Your task to perform on an android device: turn off improve location accuracy Image 0: 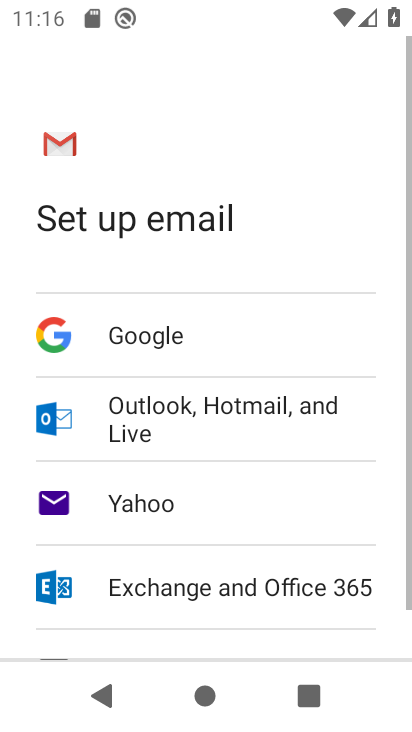
Step 0: press back button
Your task to perform on an android device: turn off improve location accuracy Image 1: 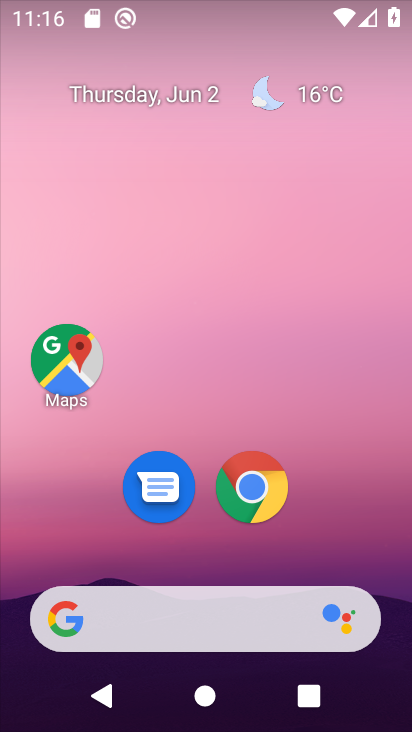
Step 1: drag from (340, 530) to (220, 107)
Your task to perform on an android device: turn off improve location accuracy Image 2: 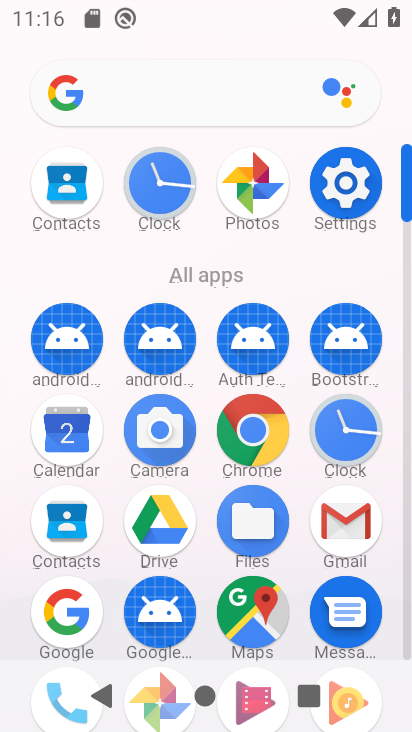
Step 2: click (345, 183)
Your task to perform on an android device: turn off improve location accuracy Image 3: 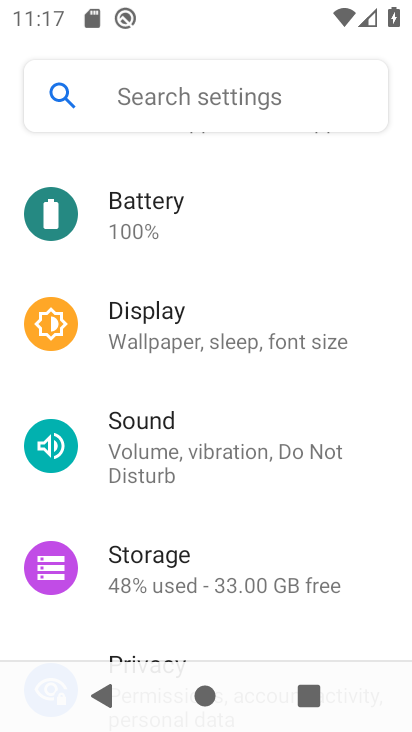
Step 3: drag from (239, 239) to (257, 332)
Your task to perform on an android device: turn off improve location accuracy Image 4: 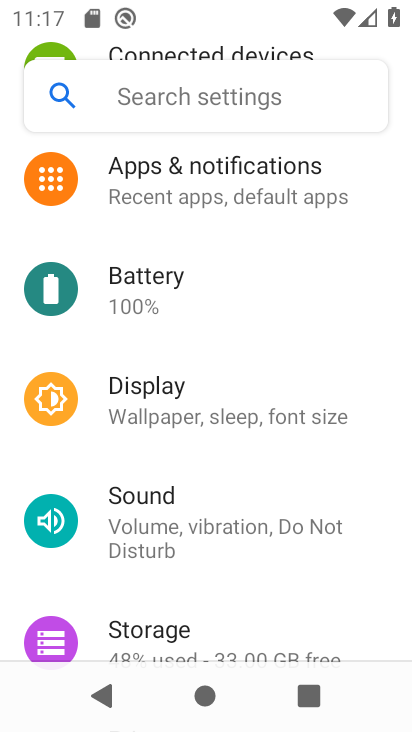
Step 4: drag from (236, 251) to (247, 307)
Your task to perform on an android device: turn off improve location accuracy Image 5: 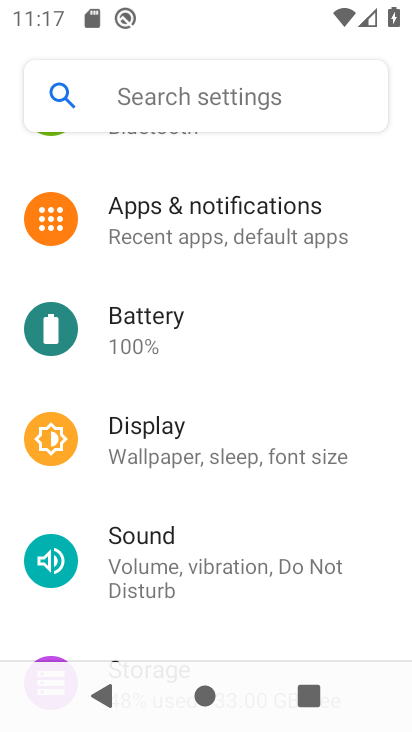
Step 5: drag from (239, 388) to (238, 299)
Your task to perform on an android device: turn off improve location accuracy Image 6: 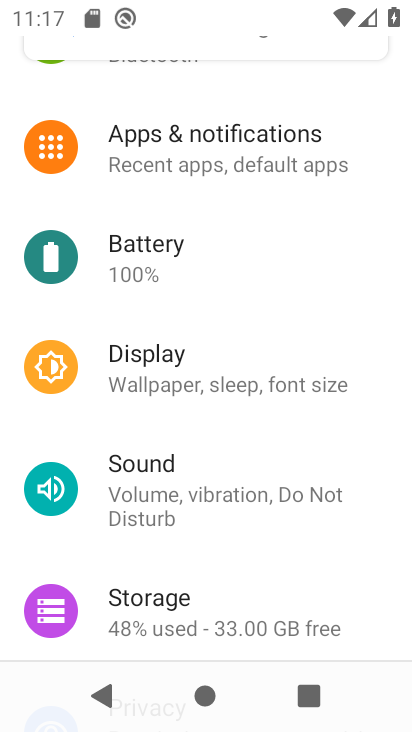
Step 6: drag from (226, 426) to (256, 334)
Your task to perform on an android device: turn off improve location accuracy Image 7: 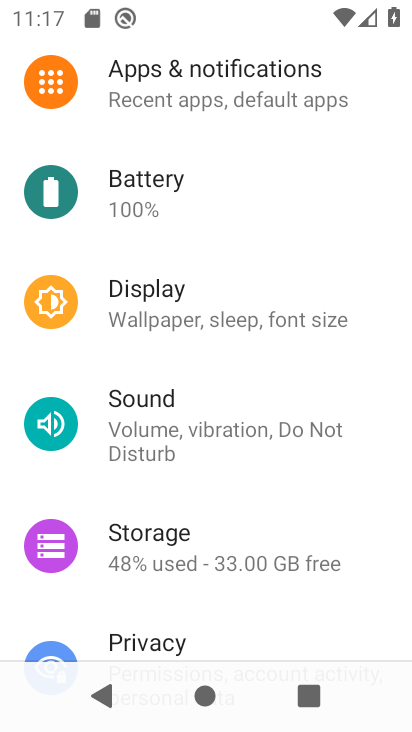
Step 7: drag from (221, 382) to (252, 292)
Your task to perform on an android device: turn off improve location accuracy Image 8: 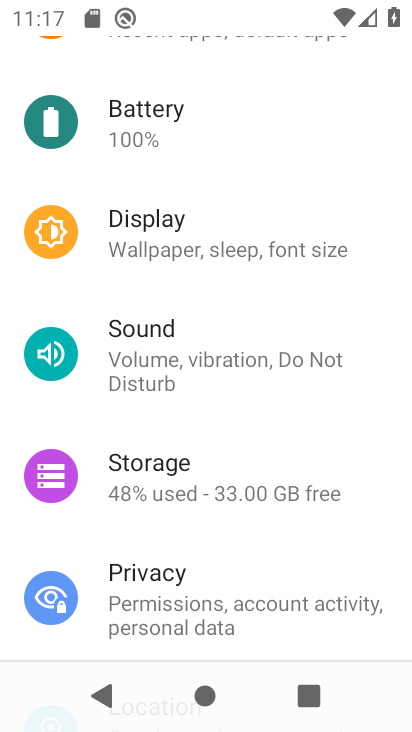
Step 8: drag from (228, 418) to (291, 331)
Your task to perform on an android device: turn off improve location accuracy Image 9: 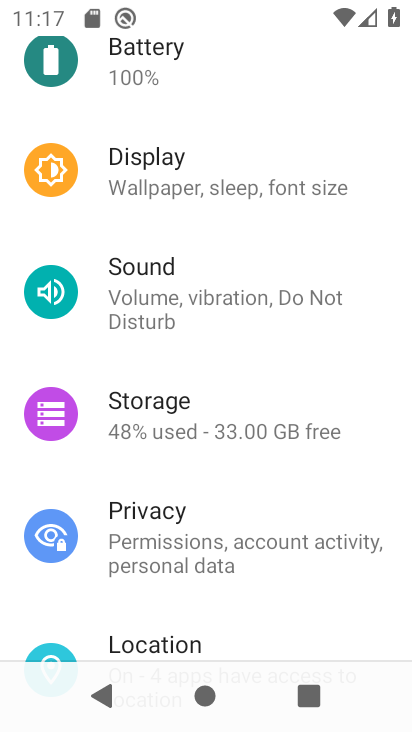
Step 9: drag from (240, 372) to (296, 270)
Your task to perform on an android device: turn off improve location accuracy Image 10: 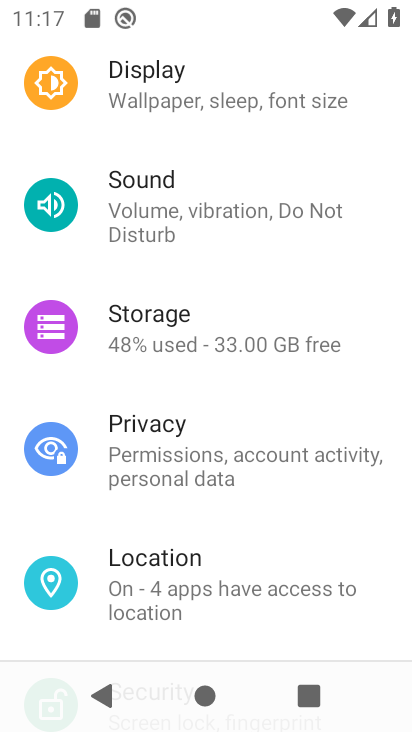
Step 10: drag from (228, 400) to (281, 316)
Your task to perform on an android device: turn off improve location accuracy Image 11: 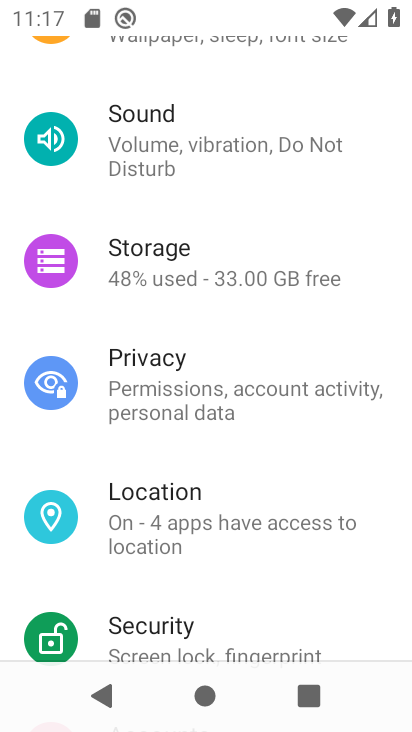
Step 11: click (227, 521)
Your task to perform on an android device: turn off improve location accuracy Image 12: 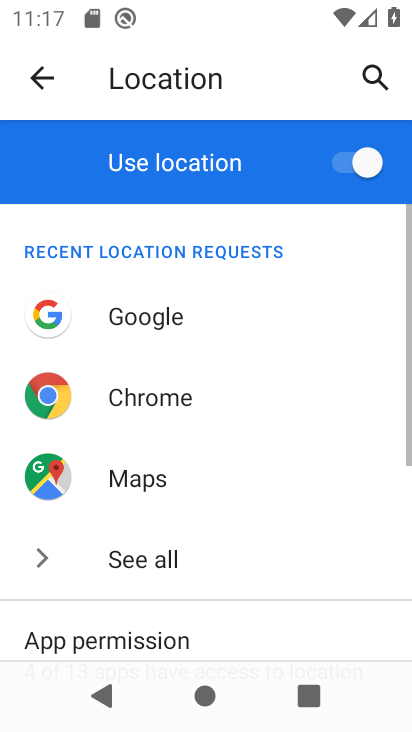
Step 12: drag from (234, 542) to (265, 391)
Your task to perform on an android device: turn off improve location accuracy Image 13: 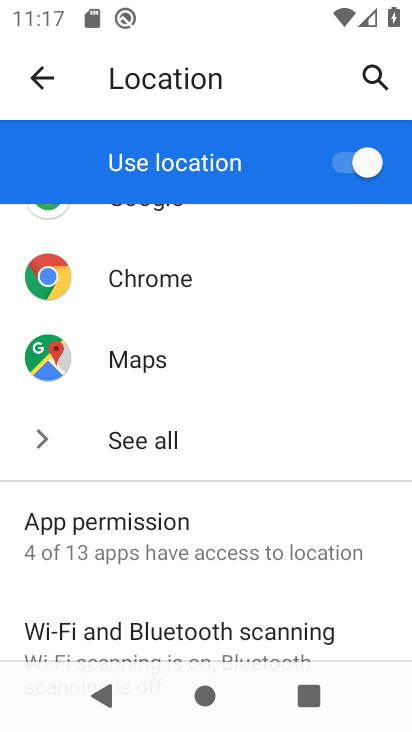
Step 13: drag from (204, 581) to (267, 470)
Your task to perform on an android device: turn off improve location accuracy Image 14: 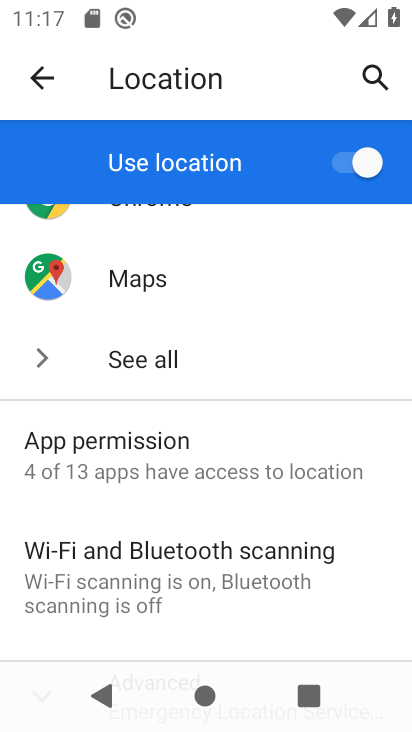
Step 14: drag from (225, 618) to (311, 479)
Your task to perform on an android device: turn off improve location accuracy Image 15: 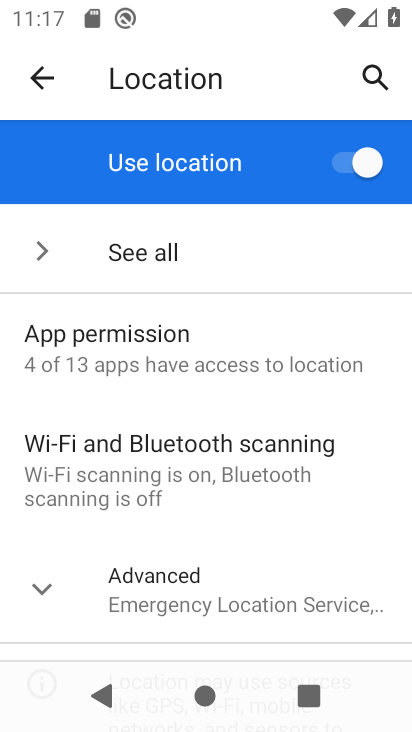
Step 15: click (257, 606)
Your task to perform on an android device: turn off improve location accuracy Image 16: 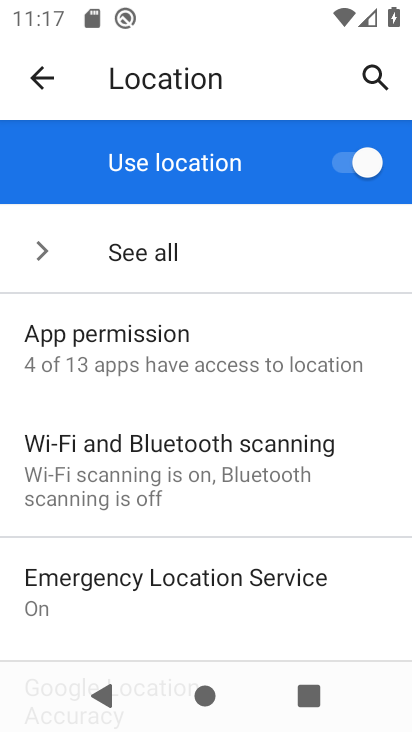
Step 16: drag from (229, 612) to (295, 512)
Your task to perform on an android device: turn off improve location accuracy Image 17: 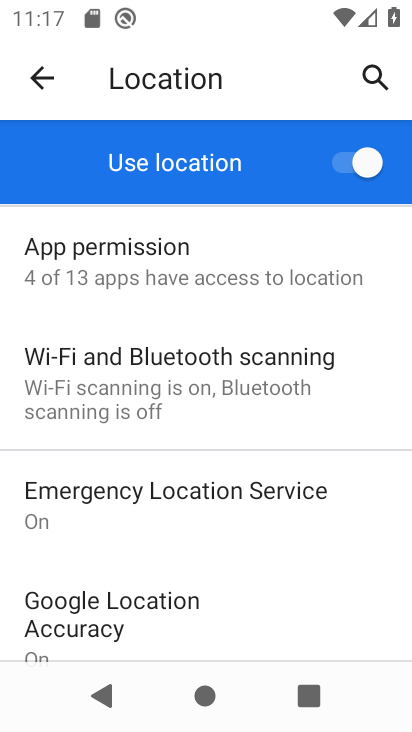
Step 17: drag from (228, 614) to (279, 524)
Your task to perform on an android device: turn off improve location accuracy Image 18: 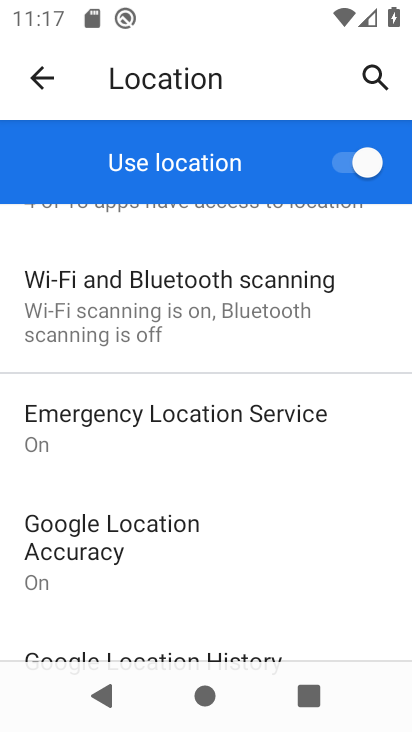
Step 18: click (205, 548)
Your task to perform on an android device: turn off improve location accuracy Image 19: 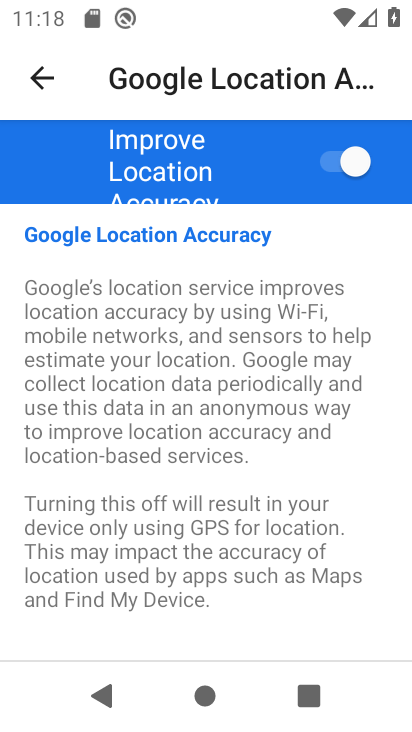
Step 19: click (330, 168)
Your task to perform on an android device: turn off improve location accuracy Image 20: 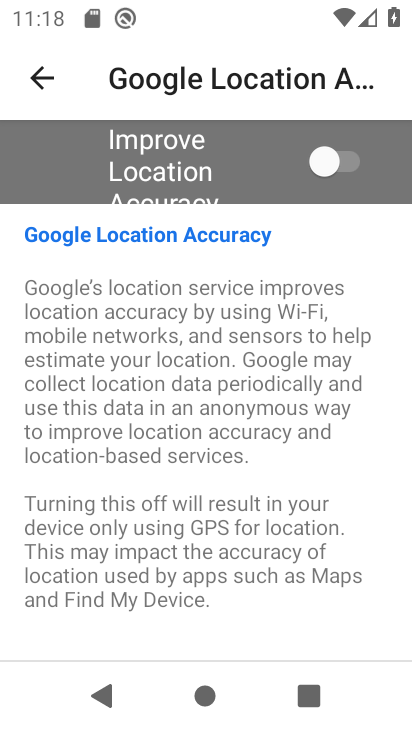
Step 20: task complete